Your task to perform on an android device: open chrome and create a bookmark for the current page Image 0: 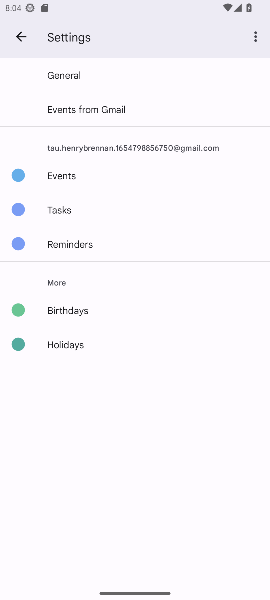
Step 0: press home button
Your task to perform on an android device: open chrome and create a bookmark for the current page Image 1: 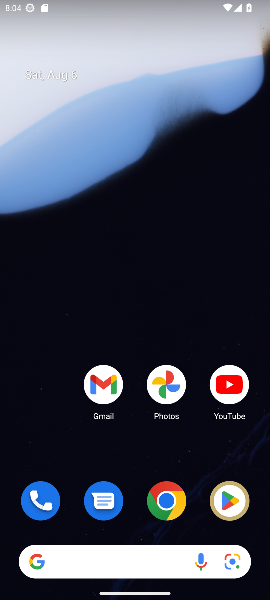
Step 1: click (162, 491)
Your task to perform on an android device: open chrome and create a bookmark for the current page Image 2: 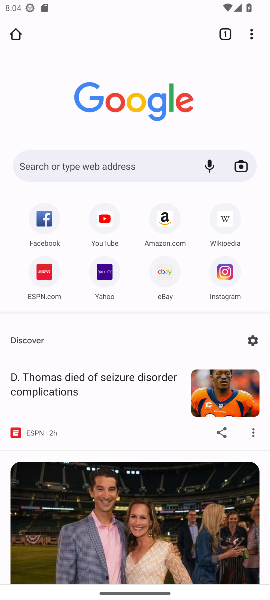
Step 2: click (252, 36)
Your task to perform on an android device: open chrome and create a bookmark for the current page Image 3: 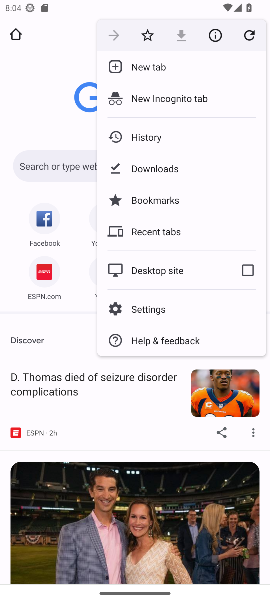
Step 3: click (151, 33)
Your task to perform on an android device: open chrome and create a bookmark for the current page Image 4: 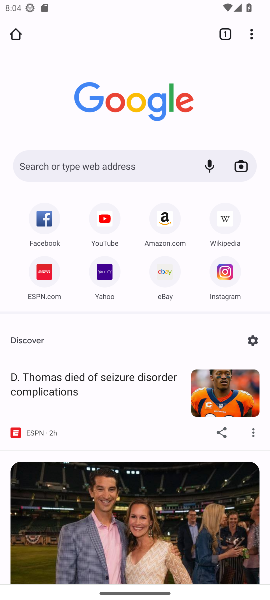
Step 4: task complete